Your task to perform on an android device: search for starred emails in the gmail app Image 0: 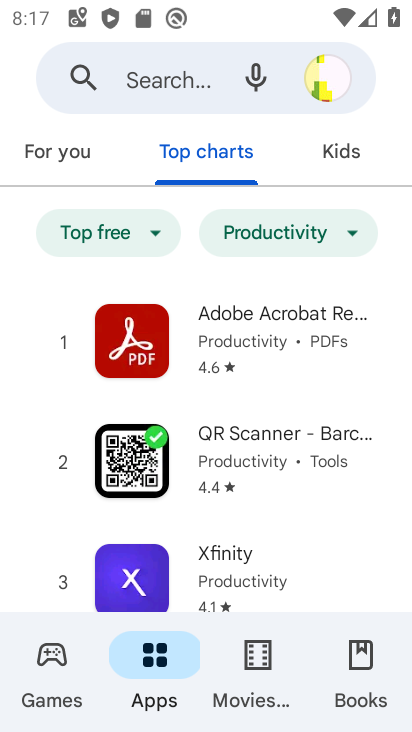
Step 0: press home button
Your task to perform on an android device: search for starred emails in the gmail app Image 1: 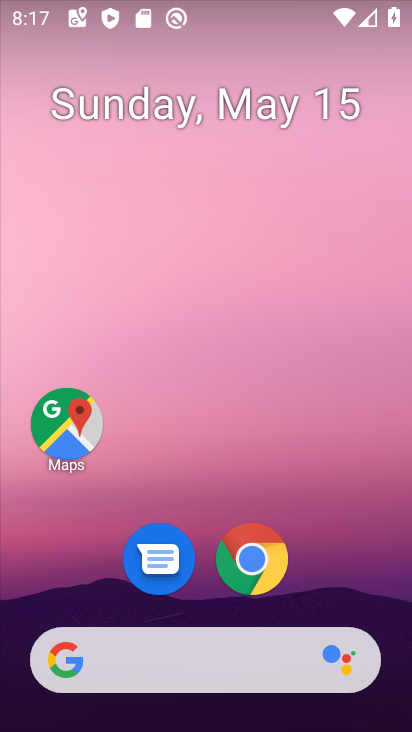
Step 1: drag from (329, 576) to (300, 201)
Your task to perform on an android device: search for starred emails in the gmail app Image 2: 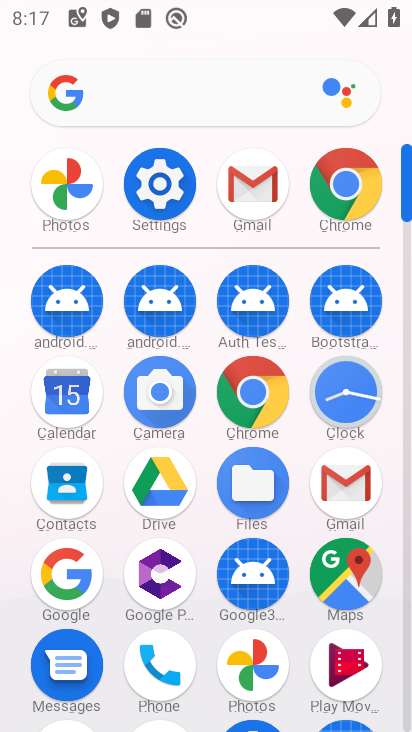
Step 2: click (249, 212)
Your task to perform on an android device: search for starred emails in the gmail app Image 3: 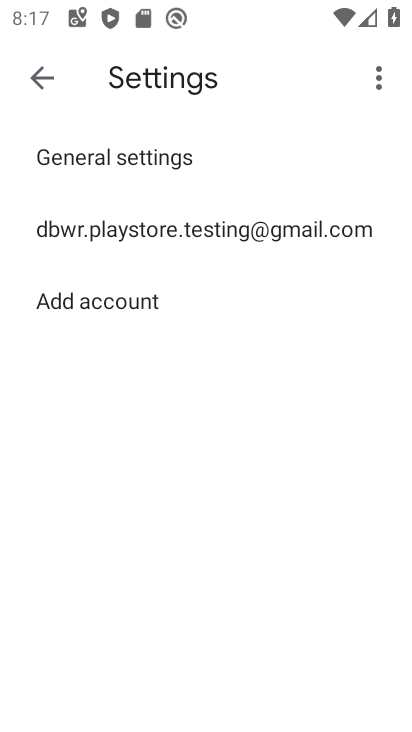
Step 3: click (42, 81)
Your task to perform on an android device: search for starred emails in the gmail app Image 4: 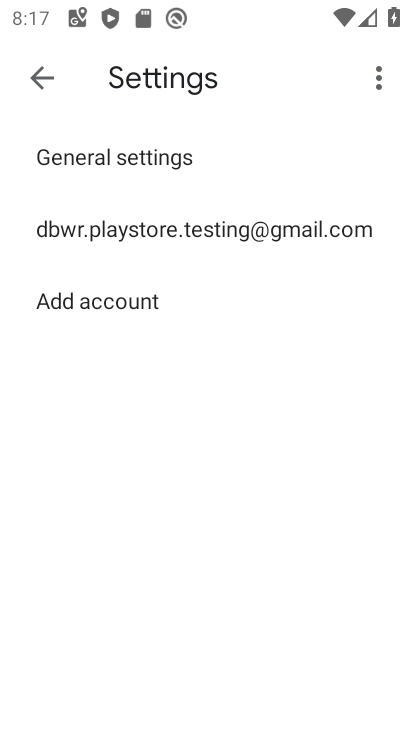
Step 4: click (42, 81)
Your task to perform on an android device: search for starred emails in the gmail app Image 5: 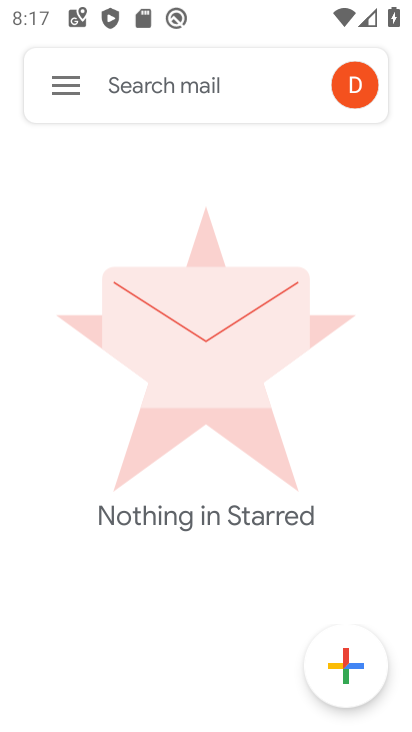
Step 5: click (85, 82)
Your task to perform on an android device: search for starred emails in the gmail app Image 6: 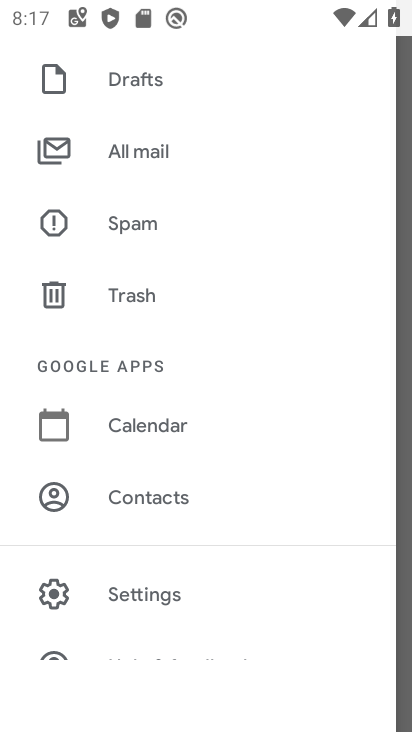
Step 6: drag from (145, 151) to (132, 376)
Your task to perform on an android device: search for starred emails in the gmail app Image 7: 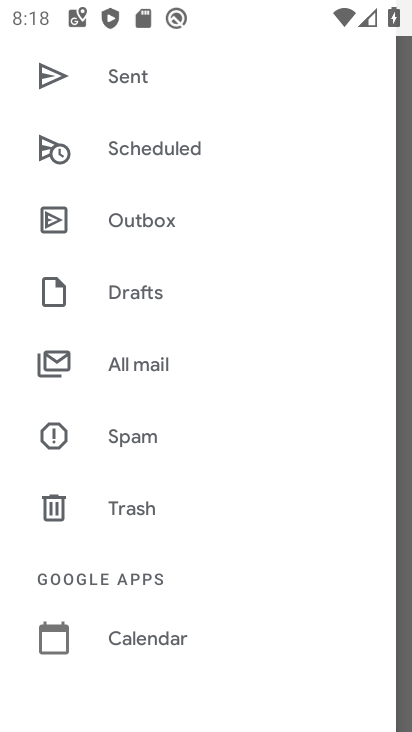
Step 7: drag from (148, 240) to (149, 451)
Your task to perform on an android device: search for starred emails in the gmail app Image 8: 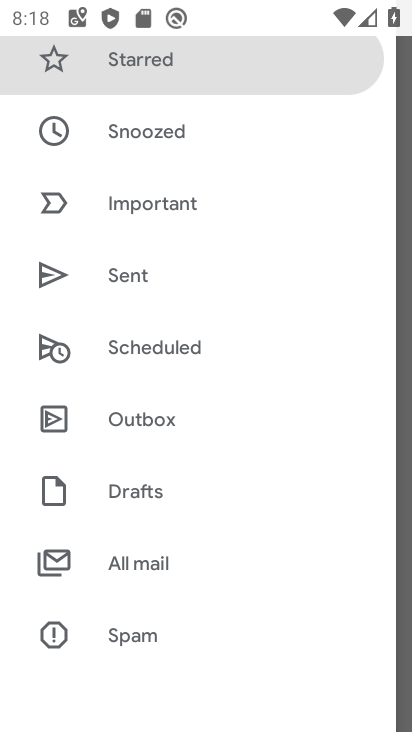
Step 8: click (164, 70)
Your task to perform on an android device: search for starred emails in the gmail app Image 9: 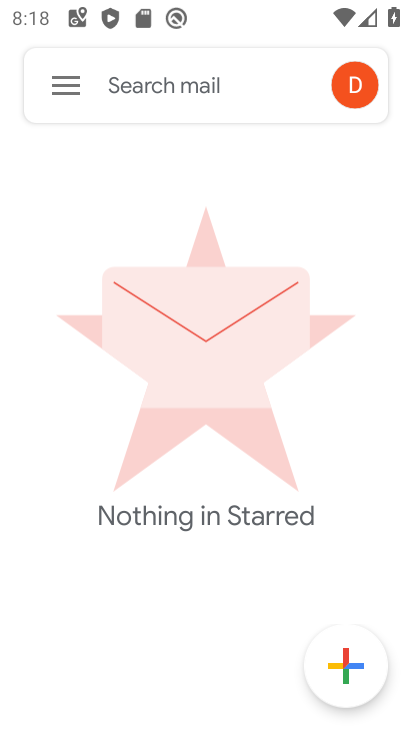
Step 9: task complete